Your task to perform on an android device: uninstall "Google Home" Image 0: 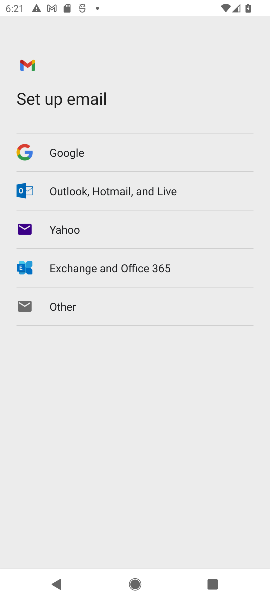
Step 0: press home button
Your task to perform on an android device: uninstall "Google Home" Image 1: 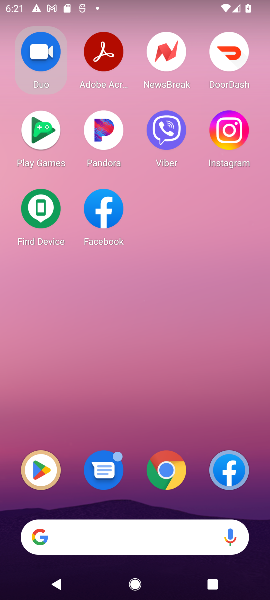
Step 1: drag from (210, 430) to (201, 56)
Your task to perform on an android device: uninstall "Google Home" Image 2: 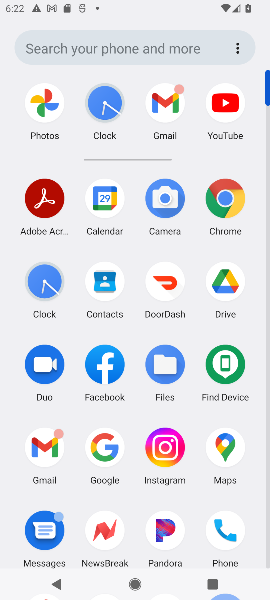
Step 2: drag from (194, 412) to (225, 113)
Your task to perform on an android device: uninstall "Google Home" Image 3: 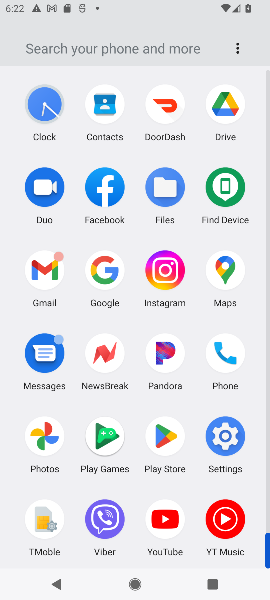
Step 3: click (172, 438)
Your task to perform on an android device: uninstall "Google Home" Image 4: 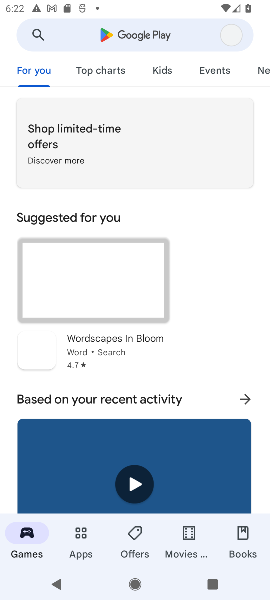
Step 4: click (174, 48)
Your task to perform on an android device: uninstall "Google Home" Image 5: 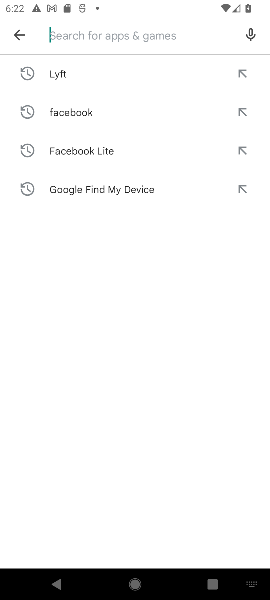
Step 5: type "Google Home"
Your task to perform on an android device: uninstall "Google Home" Image 6: 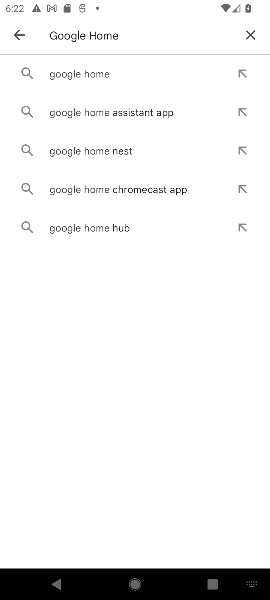
Step 6: press enter
Your task to perform on an android device: uninstall "Google Home" Image 7: 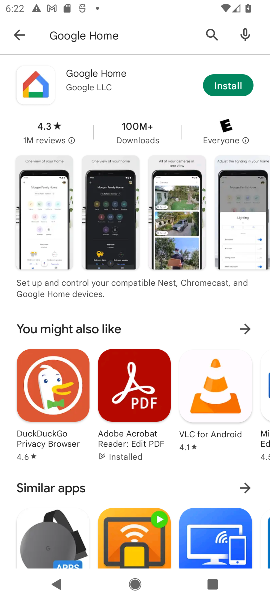
Step 7: task complete